Your task to perform on an android device: empty trash in google photos Image 0: 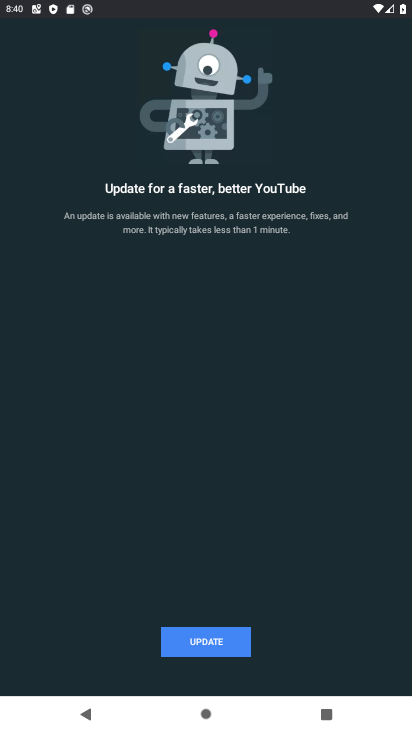
Step 0: press home button
Your task to perform on an android device: empty trash in google photos Image 1: 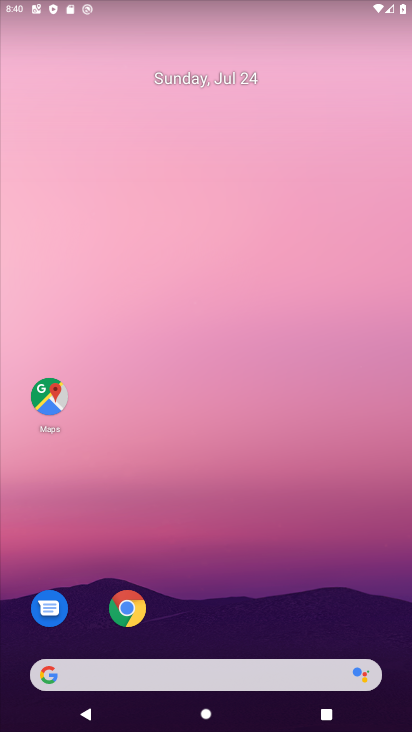
Step 1: drag from (180, 615) to (271, 40)
Your task to perform on an android device: empty trash in google photos Image 2: 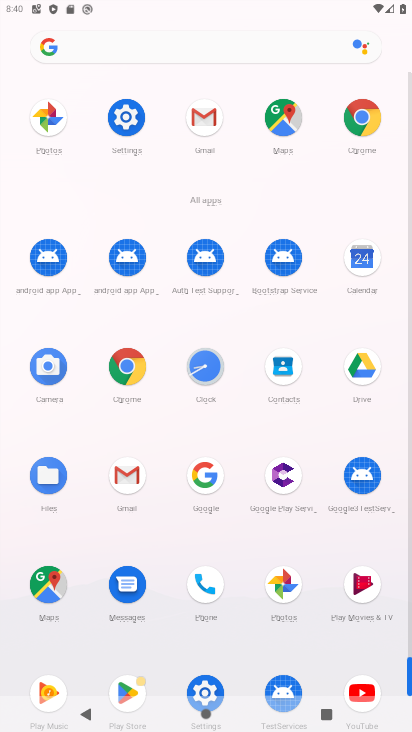
Step 2: click (287, 586)
Your task to perform on an android device: empty trash in google photos Image 3: 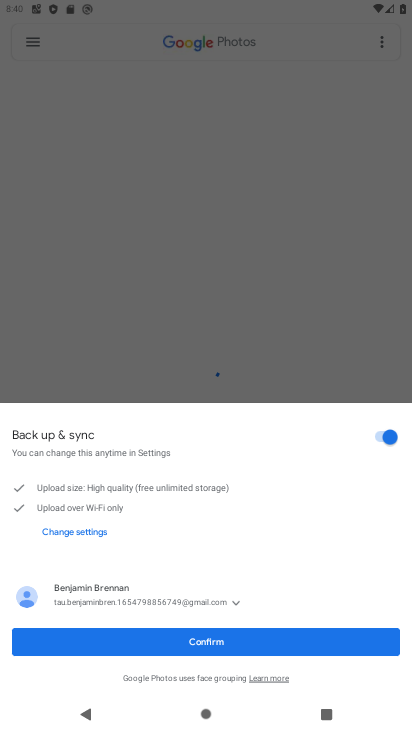
Step 3: click (195, 641)
Your task to perform on an android device: empty trash in google photos Image 4: 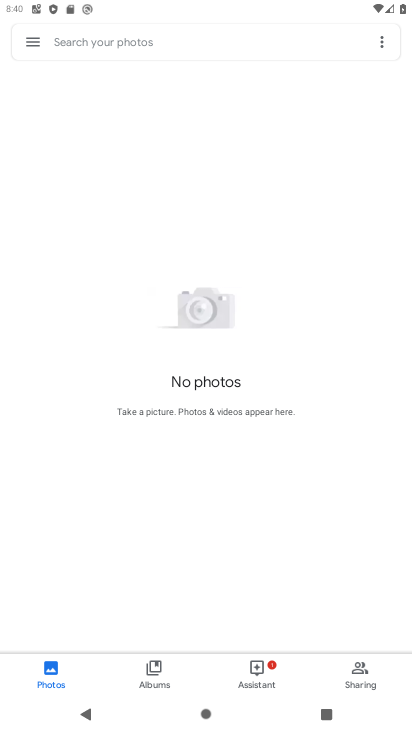
Step 4: click (36, 48)
Your task to perform on an android device: empty trash in google photos Image 5: 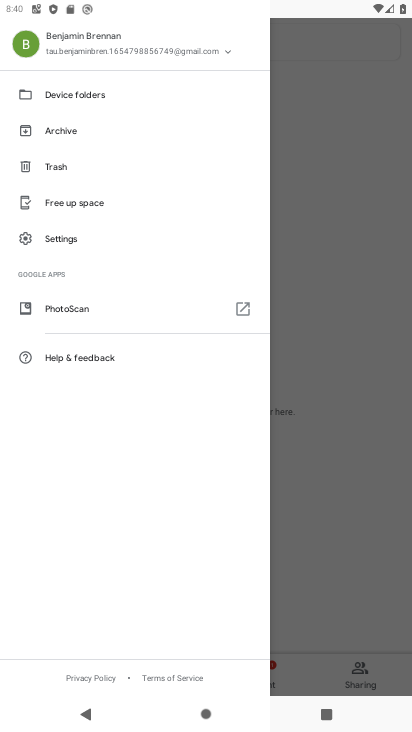
Step 5: click (68, 170)
Your task to perform on an android device: empty trash in google photos Image 6: 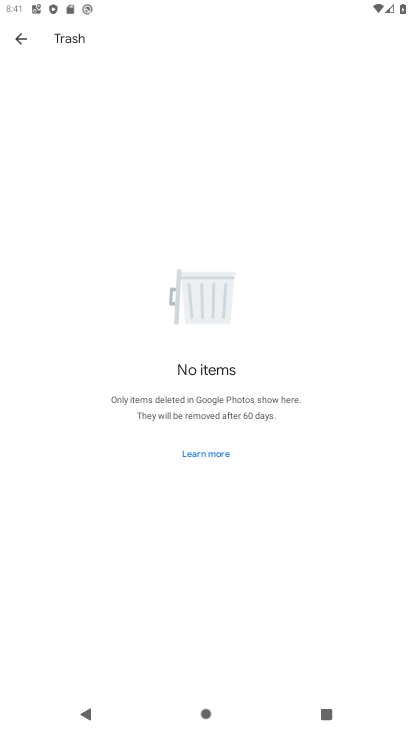
Step 6: task complete